Your task to perform on an android device: Open Yahoo.com Image 0: 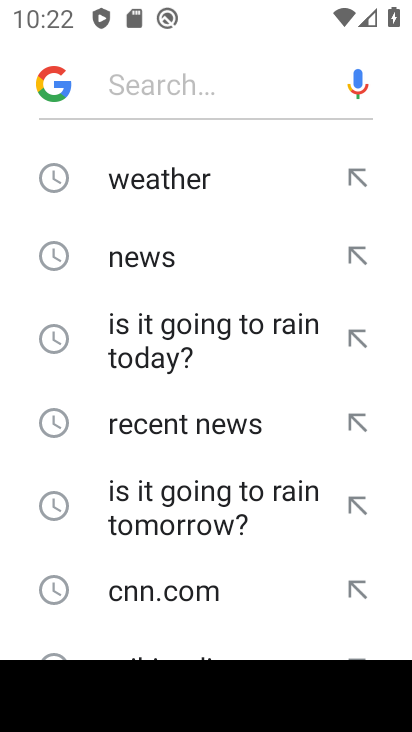
Step 0: press home button
Your task to perform on an android device: Open Yahoo.com Image 1: 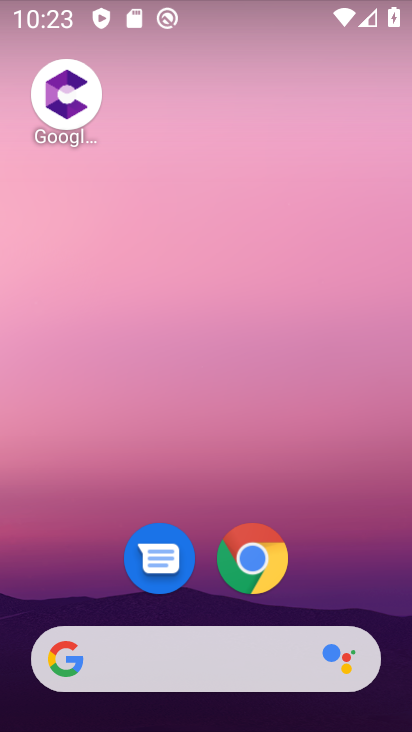
Step 1: click (260, 570)
Your task to perform on an android device: Open Yahoo.com Image 2: 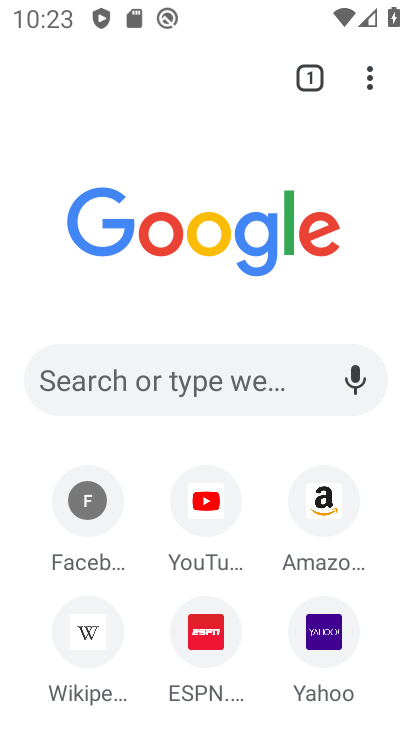
Step 2: click (317, 628)
Your task to perform on an android device: Open Yahoo.com Image 3: 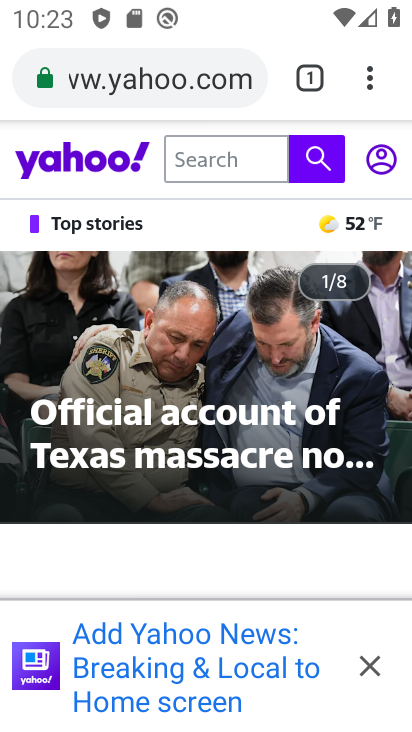
Step 3: task complete